Your task to perform on an android device: What's the weather today? Image 0: 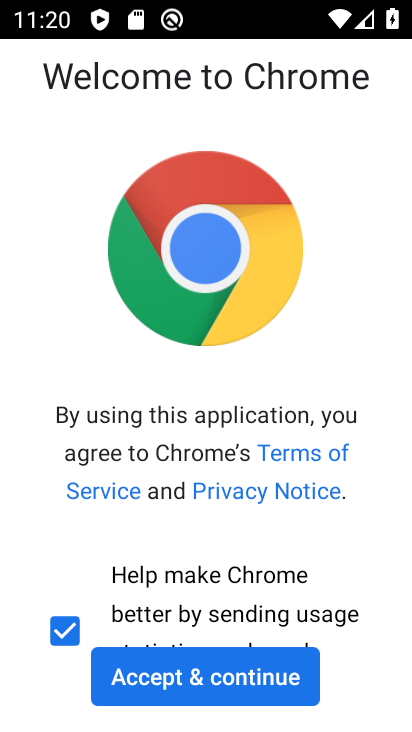
Step 0: press home button
Your task to perform on an android device: What's the weather today? Image 1: 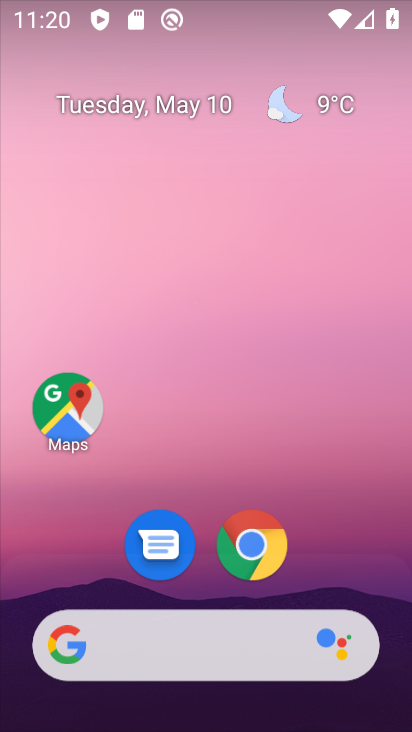
Step 1: click (327, 115)
Your task to perform on an android device: What's the weather today? Image 2: 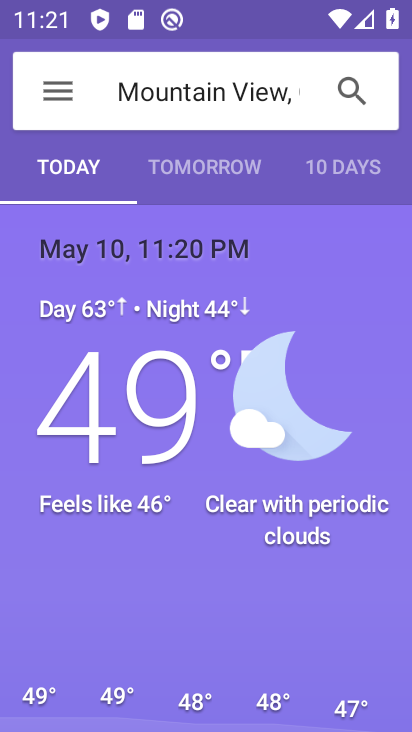
Step 2: task complete